Your task to perform on an android device: Show me the alarms in the clock app Image 0: 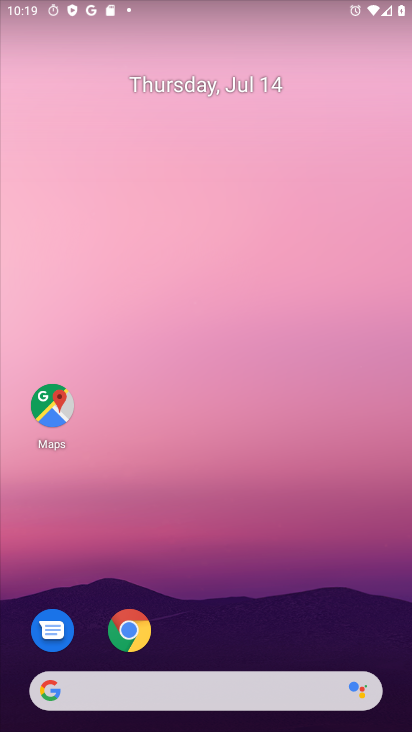
Step 0: drag from (13, 642) to (237, 255)
Your task to perform on an android device: Show me the alarms in the clock app Image 1: 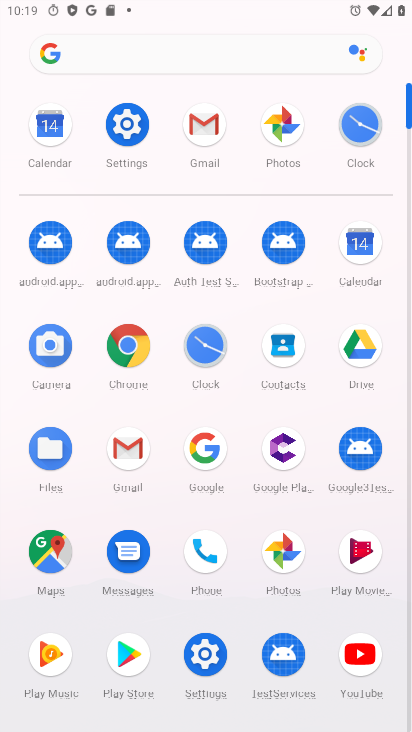
Step 1: click (354, 129)
Your task to perform on an android device: Show me the alarms in the clock app Image 2: 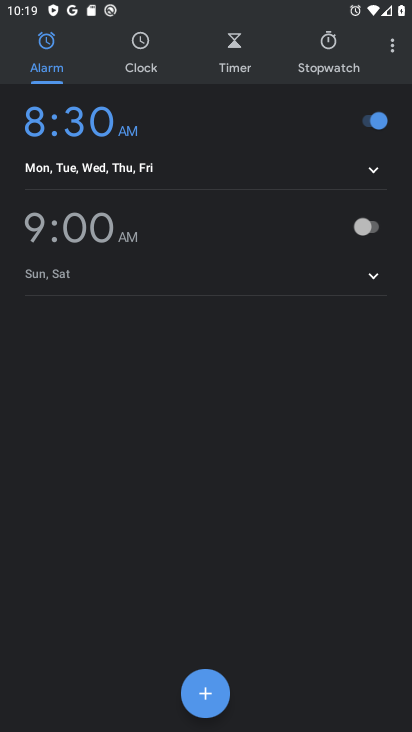
Step 2: task complete